Your task to perform on an android device: turn notification dots on Image 0: 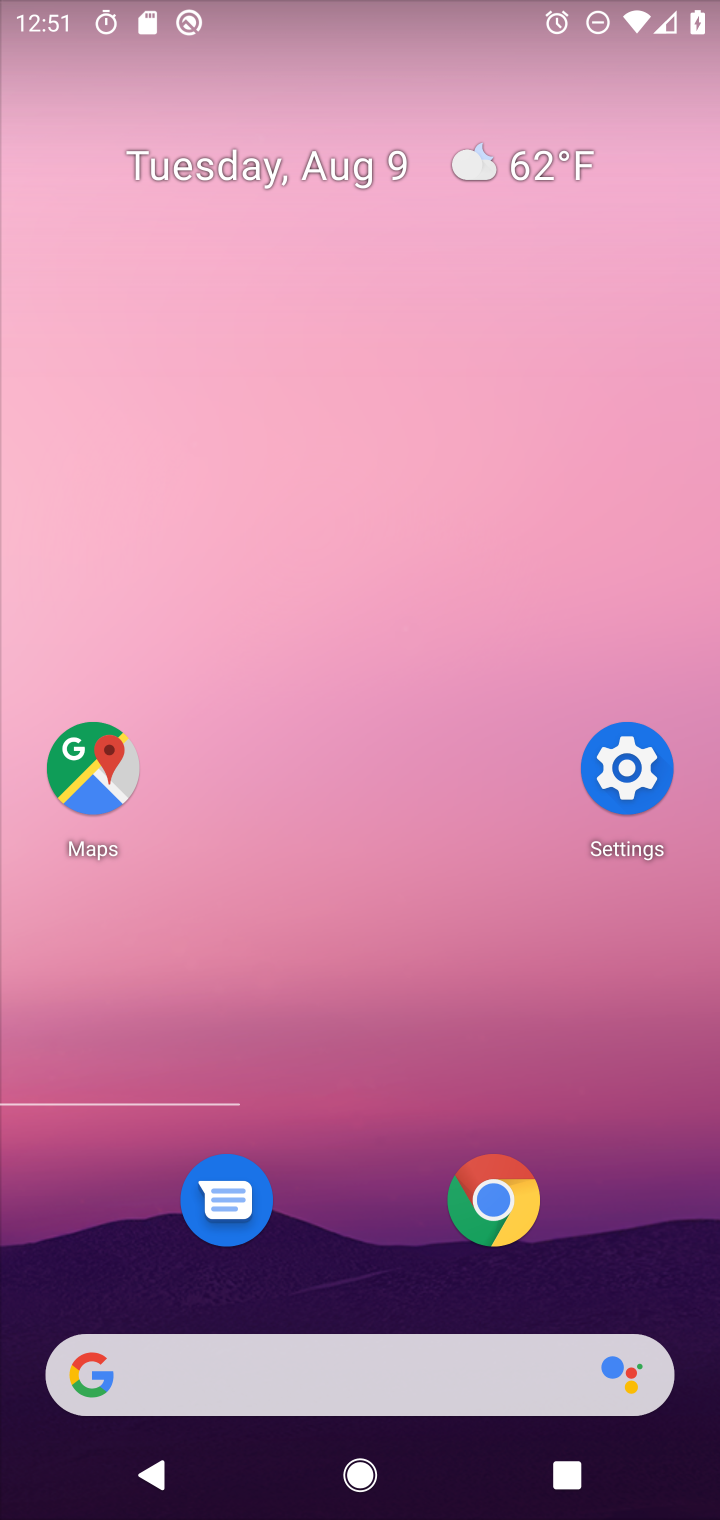
Step 0: click (635, 760)
Your task to perform on an android device: turn notification dots on Image 1: 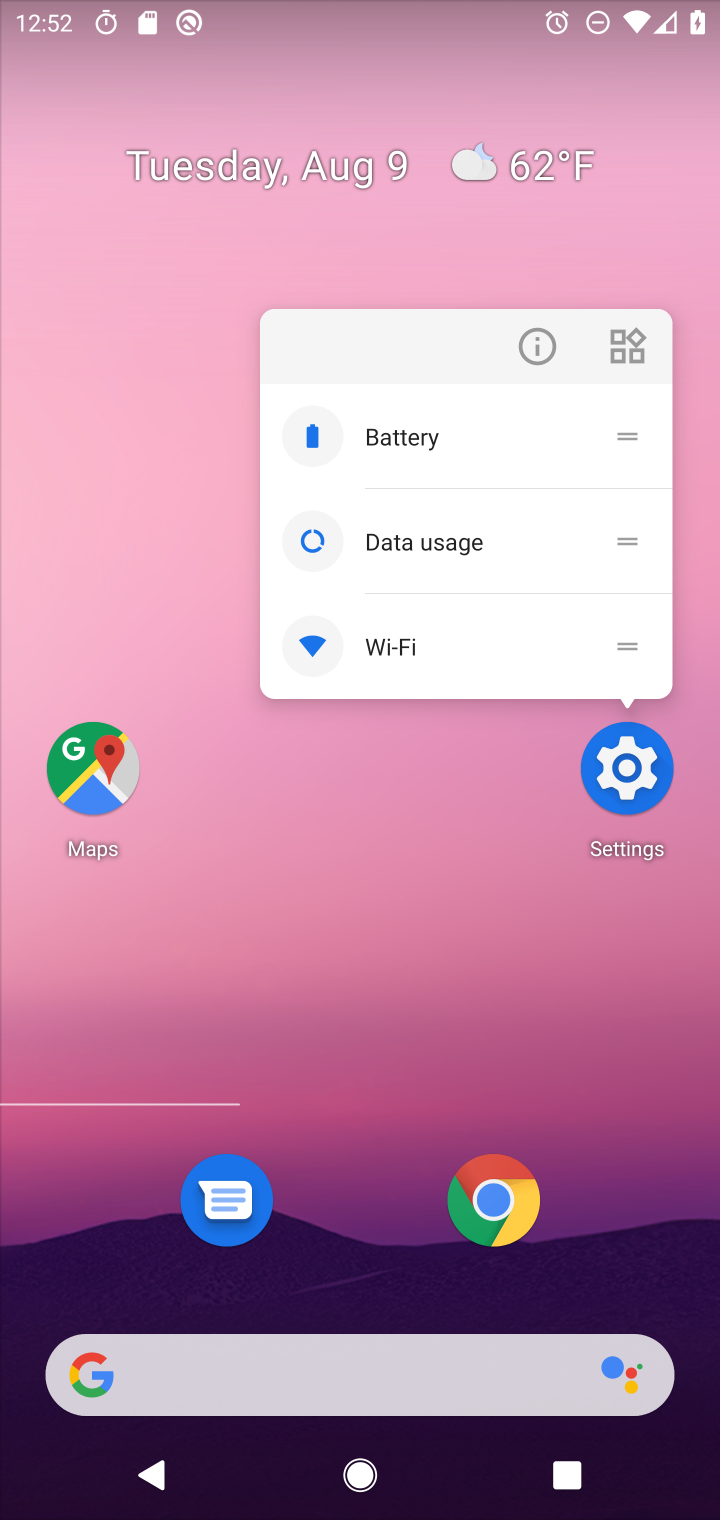
Step 1: click (629, 774)
Your task to perform on an android device: turn notification dots on Image 2: 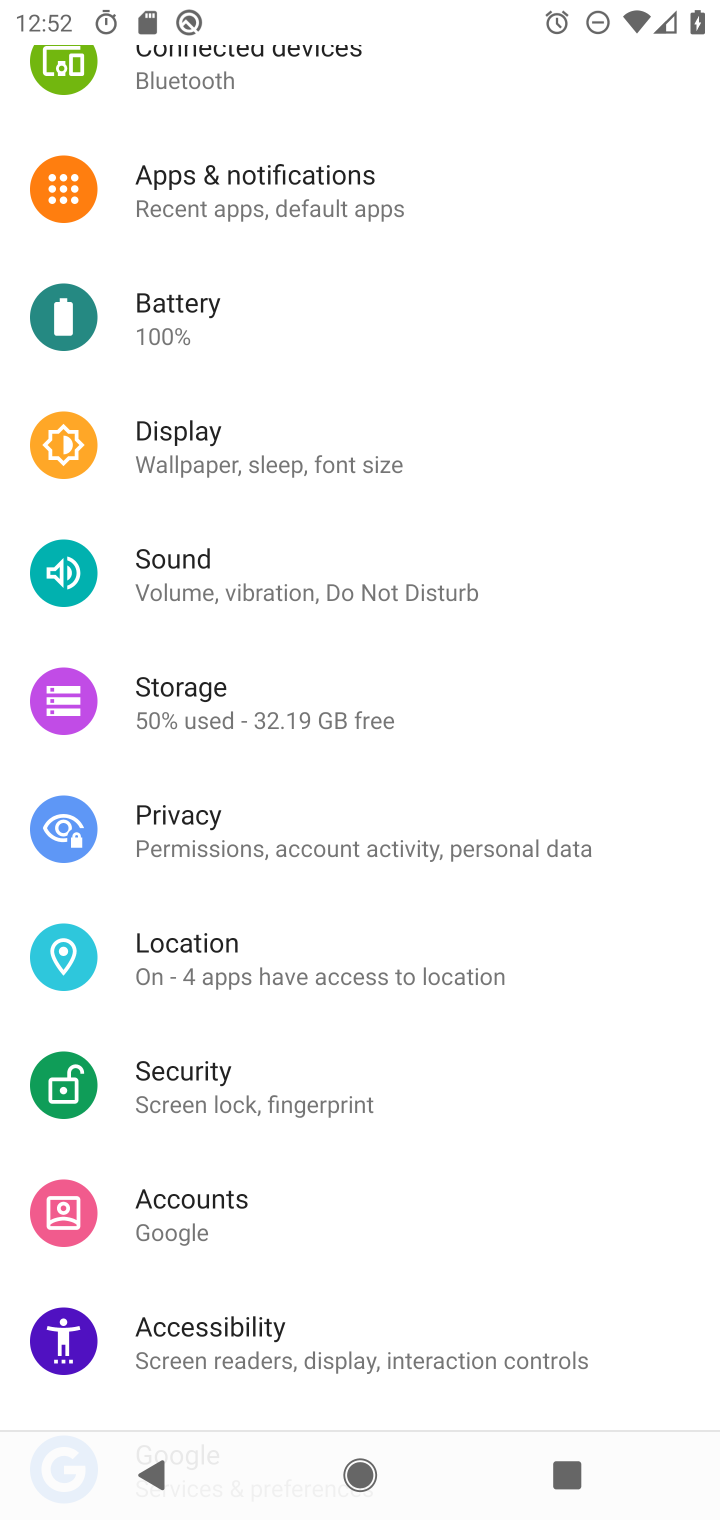
Step 2: click (320, 176)
Your task to perform on an android device: turn notification dots on Image 3: 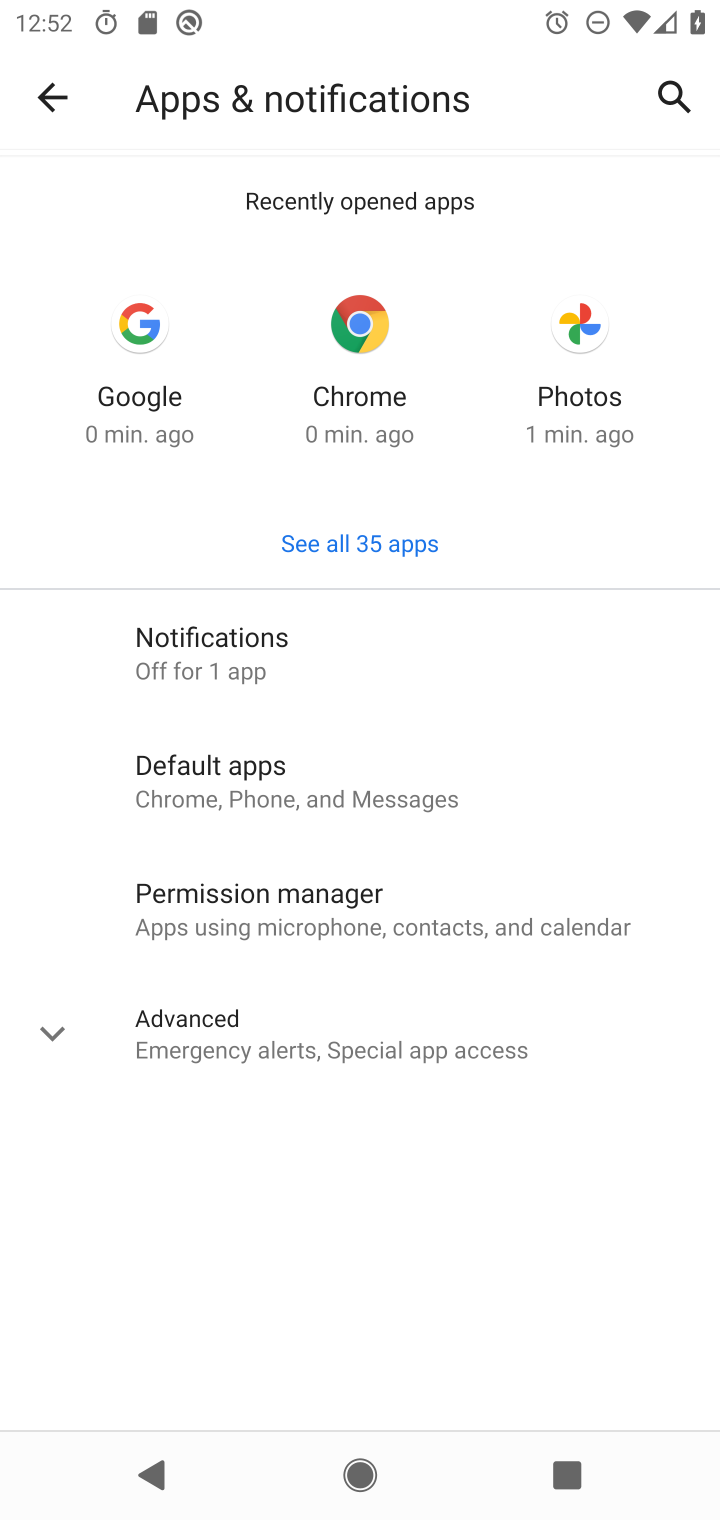
Step 3: click (236, 655)
Your task to perform on an android device: turn notification dots on Image 4: 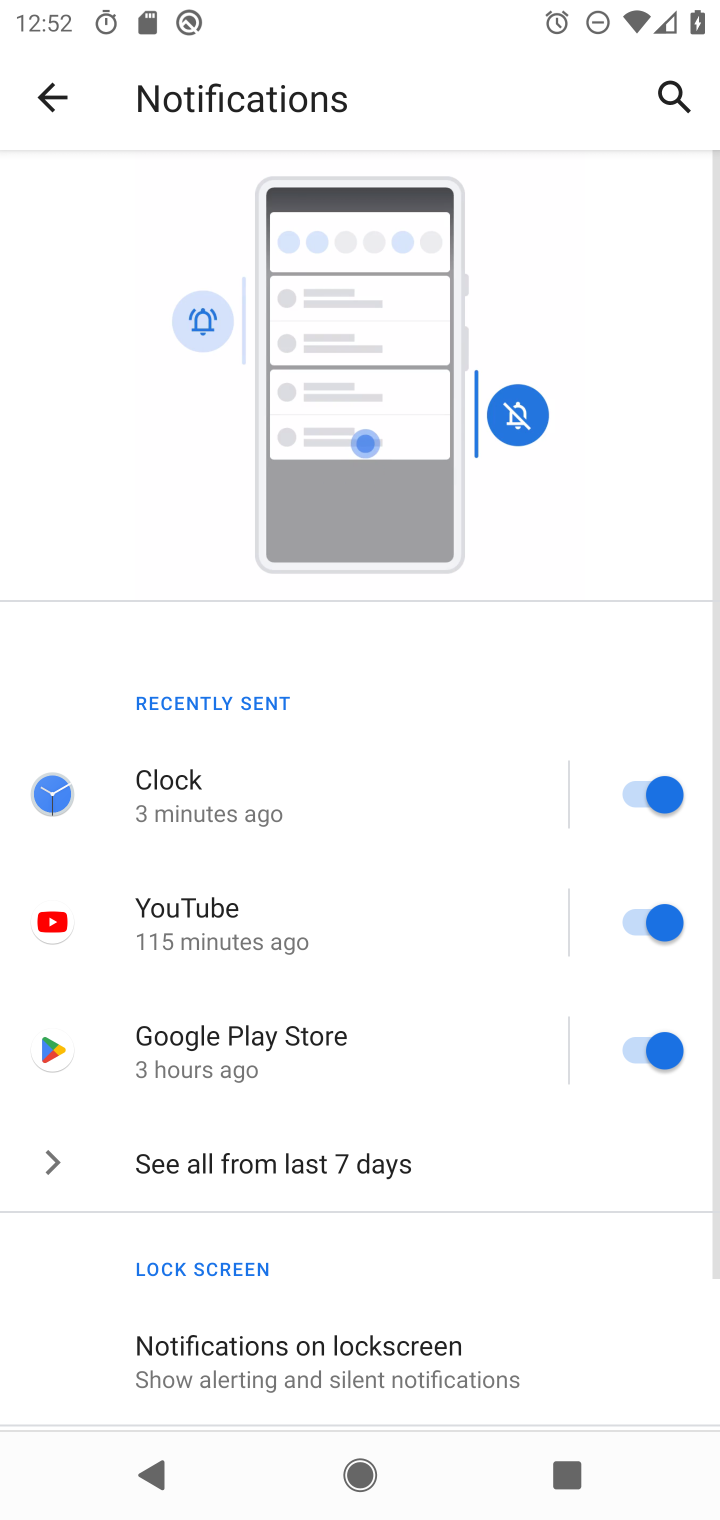
Step 4: drag from (379, 1184) to (596, 420)
Your task to perform on an android device: turn notification dots on Image 5: 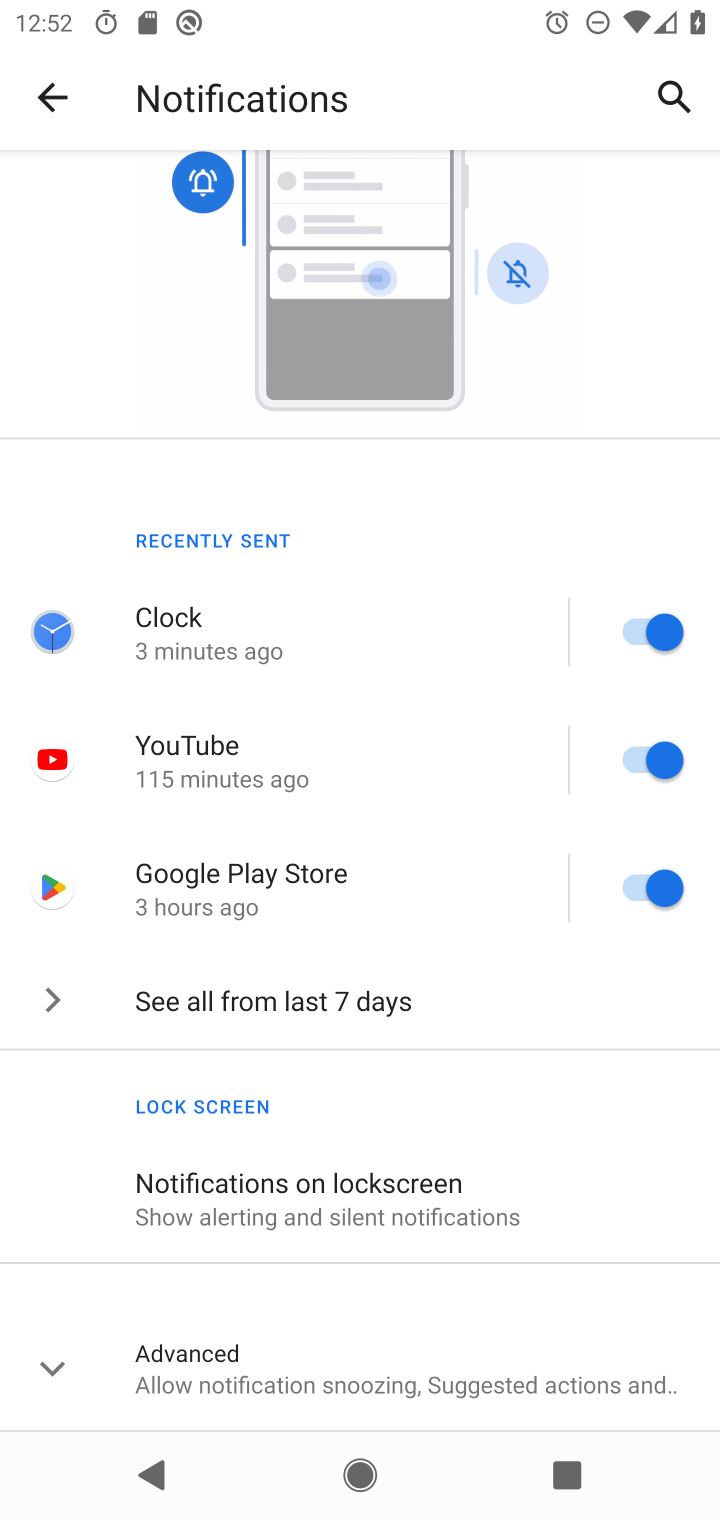
Step 5: click (318, 1360)
Your task to perform on an android device: turn notification dots on Image 6: 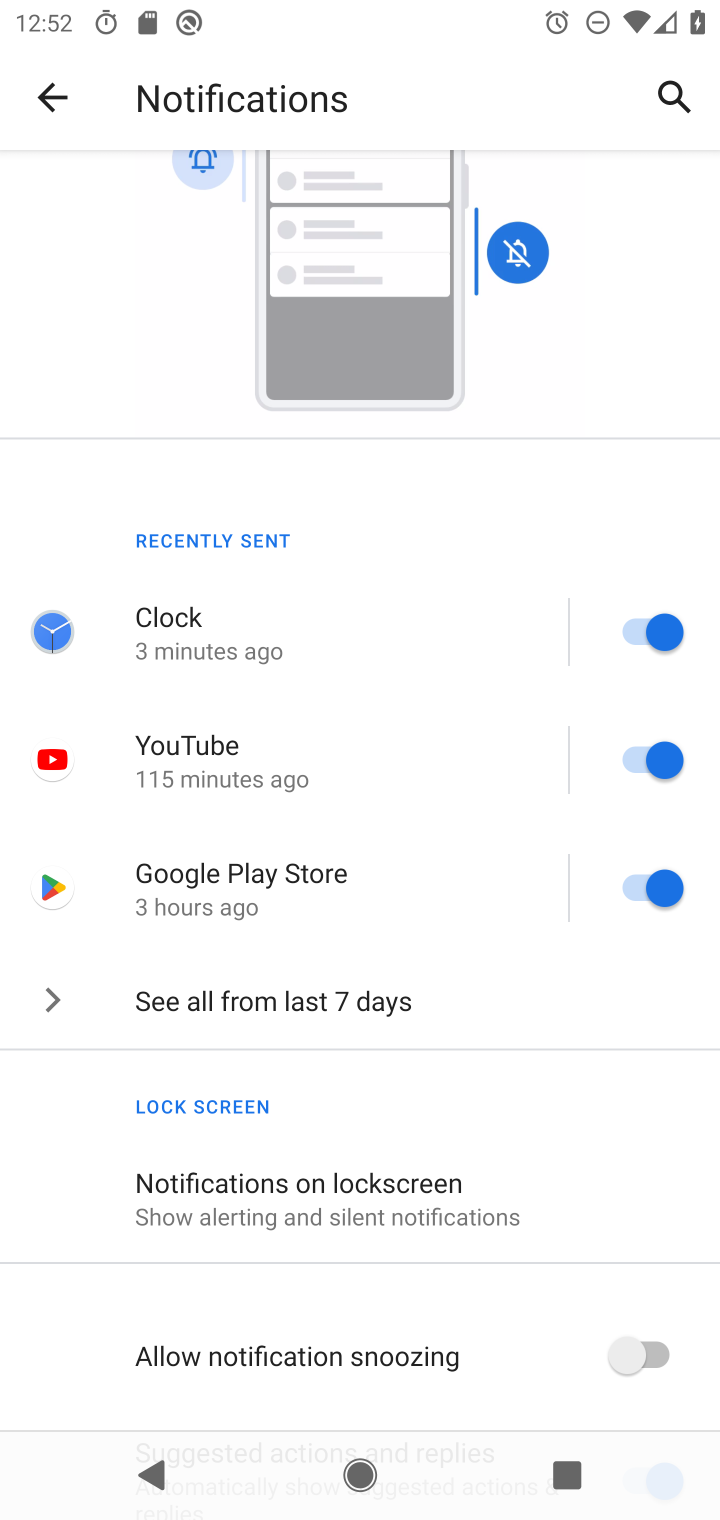
Step 6: drag from (425, 1239) to (655, 220)
Your task to perform on an android device: turn notification dots on Image 7: 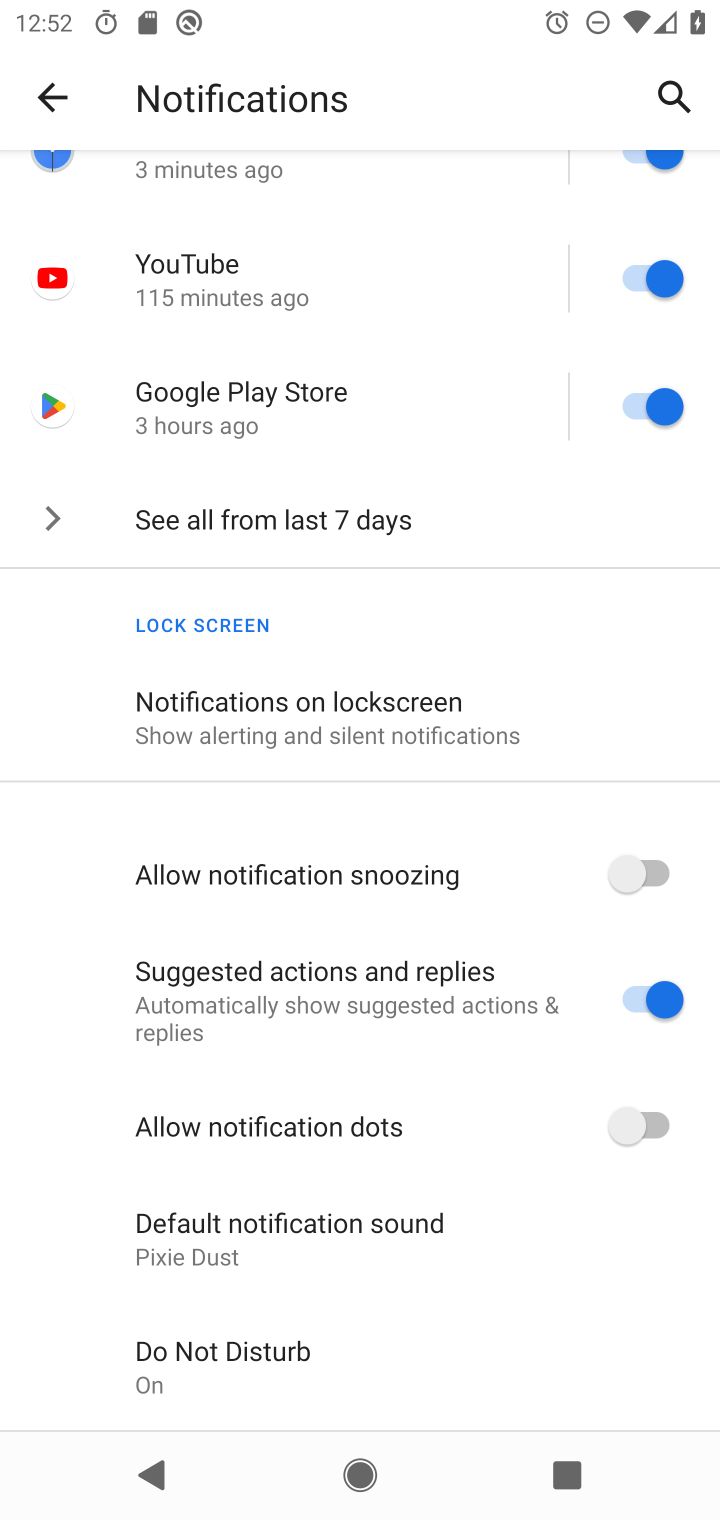
Step 7: click (657, 1113)
Your task to perform on an android device: turn notification dots on Image 8: 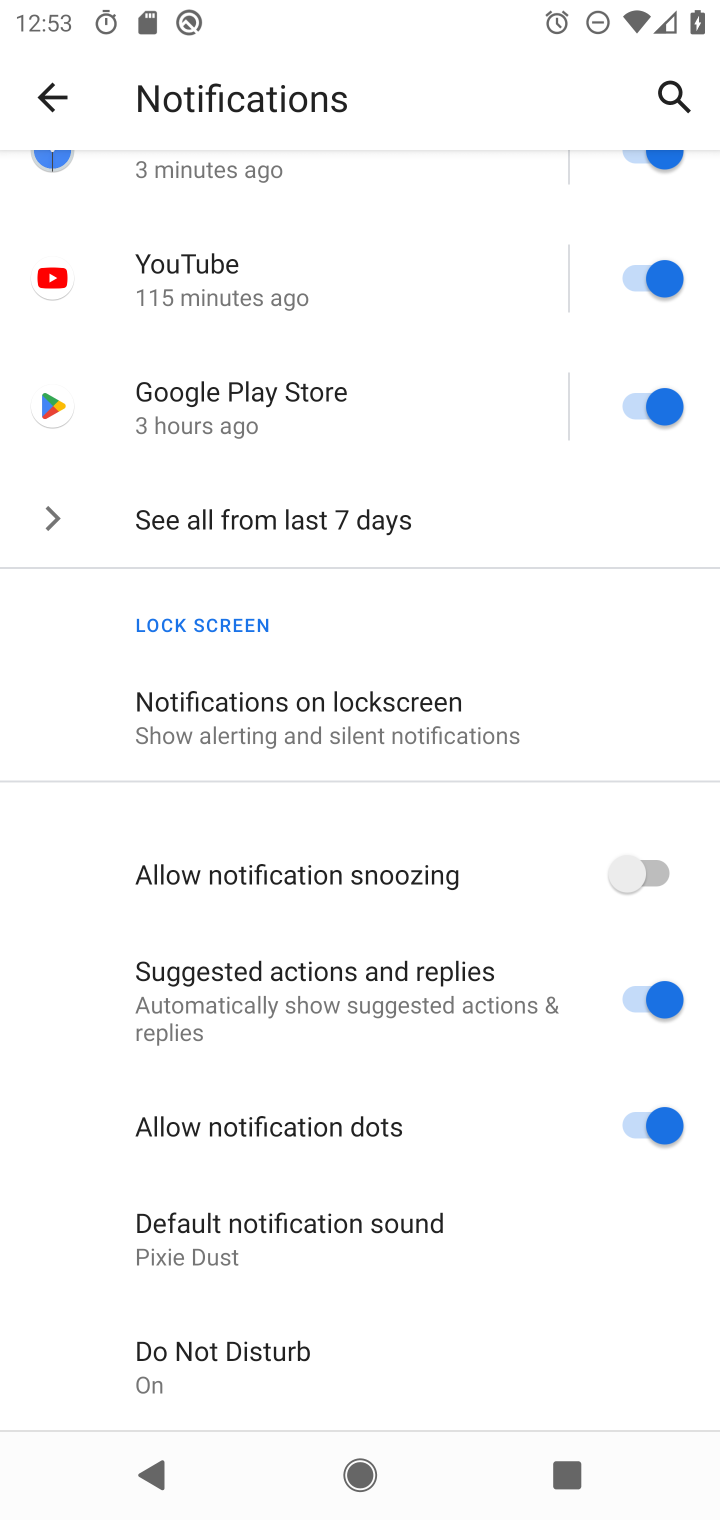
Step 8: task complete